Your task to perform on an android device: Go to Amazon Image 0: 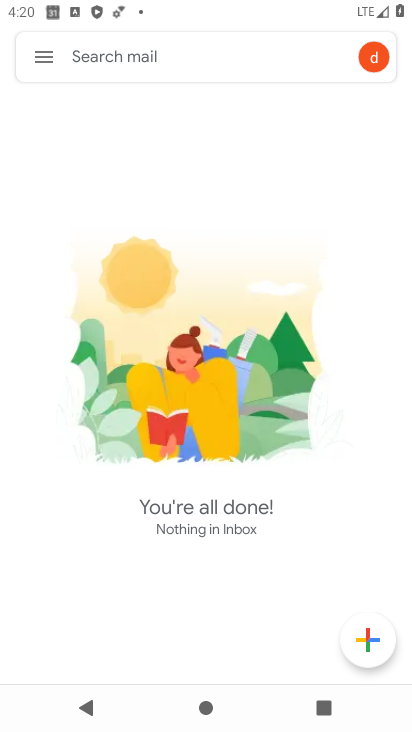
Step 0: press home button
Your task to perform on an android device: Go to Amazon Image 1: 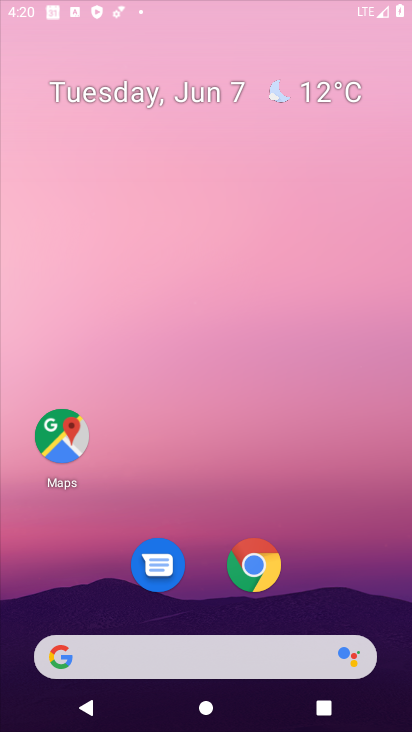
Step 1: drag from (256, 665) to (330, 6)
Your task to perform on an android device: Go to Amazon Image 2: 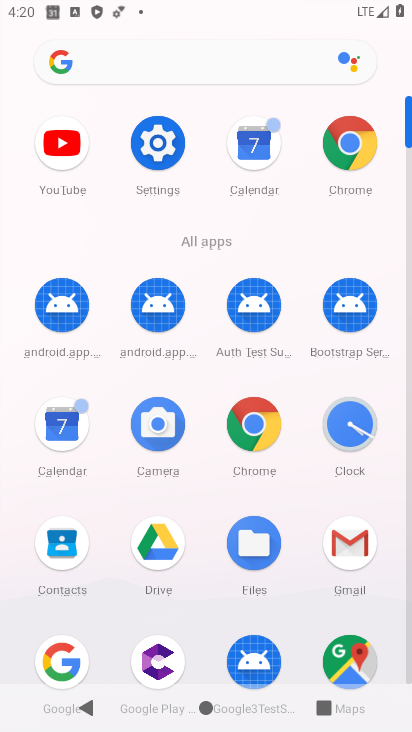
Step 2: click (275, 418)
Your task to perform on an android device: Go to Amazon Image 3: 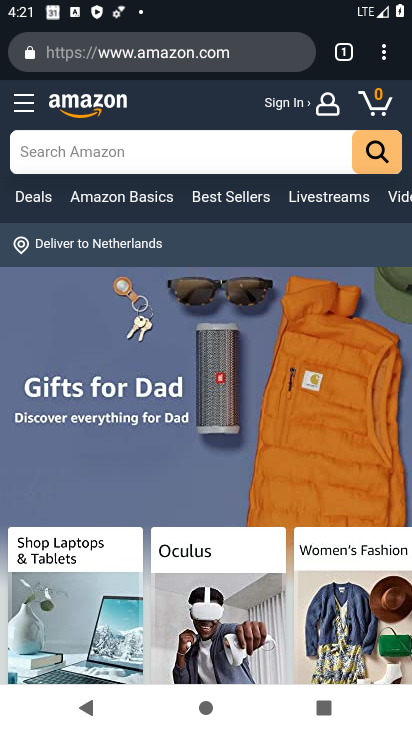
Step 3: task complete